Your task to perform on an android device: Open Yahoo.com Image 0: 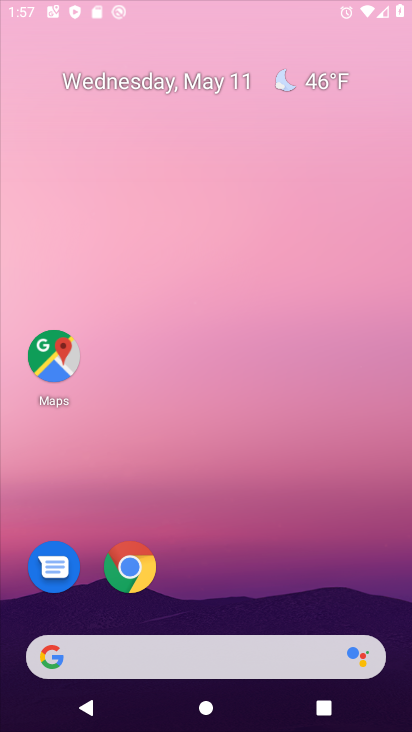
Step 0: drag from (194, 619) to (191, 43)
Your task to perform on an android device: Open Yahoo.com Image 1: 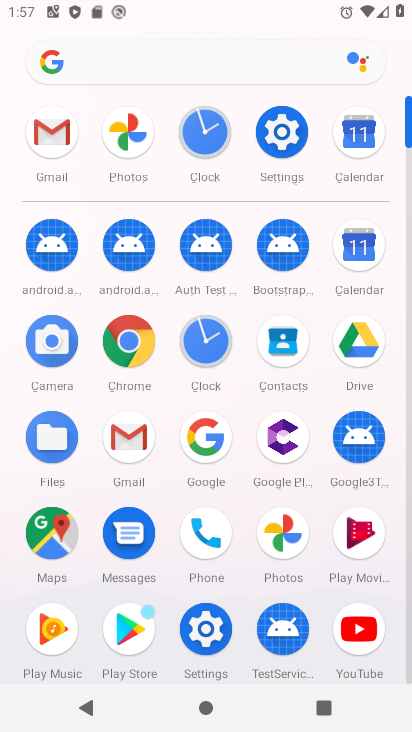
Step 1: click (270, 523)
Your task to perform on an android device: Open Yahoo.com Image 2: 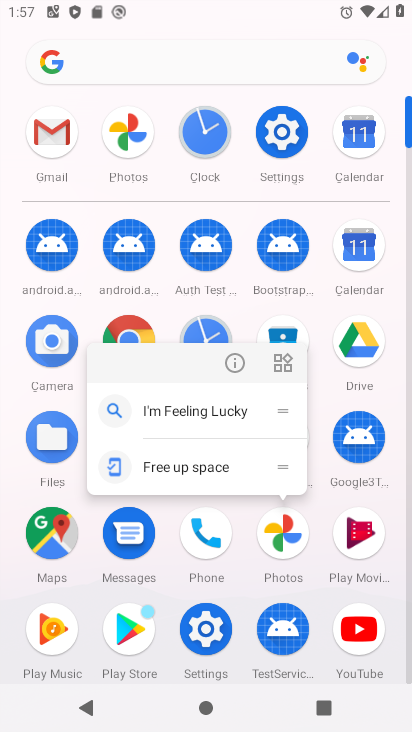
Step 2: click (133, 328)
Your task to perform on an android device: Open Yahoo.com Image 3: 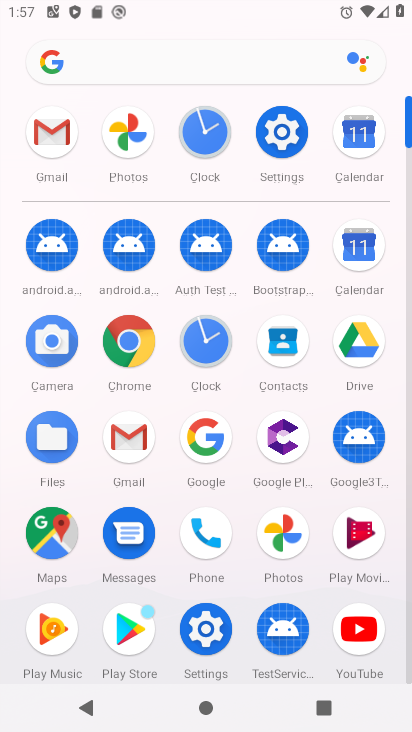
Step 3: click (135, 331)
Your task to perform on an android device: Open Yahoo.com Image 4: 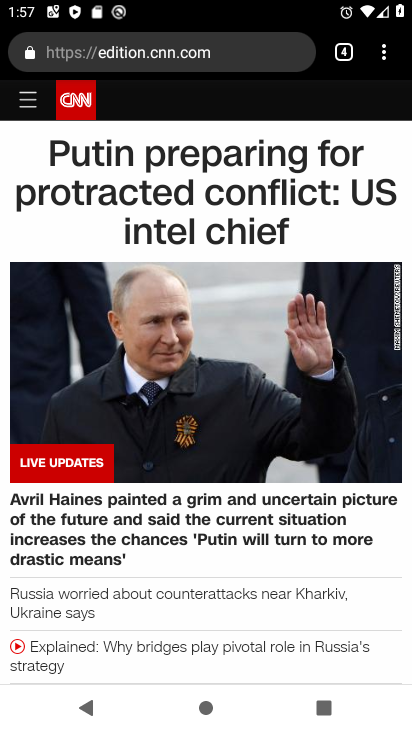
Step 4: click (346, 49)
Your task to perform on an android device: Open Yahoo.com Image 5: 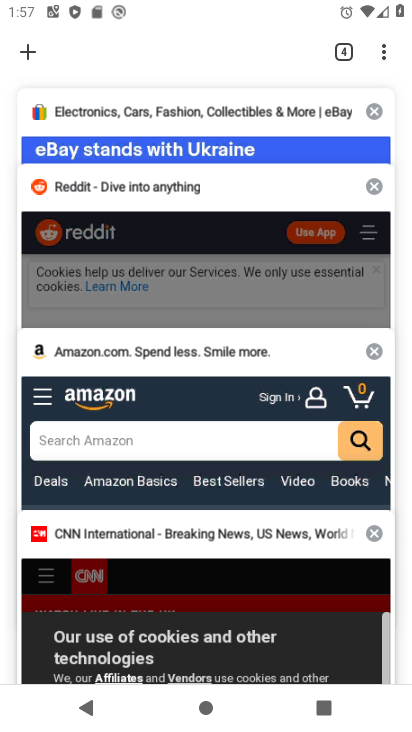
Step 5: click (25, 62)
Your task to perform on an android device: Open Yahoo.com Image 6: 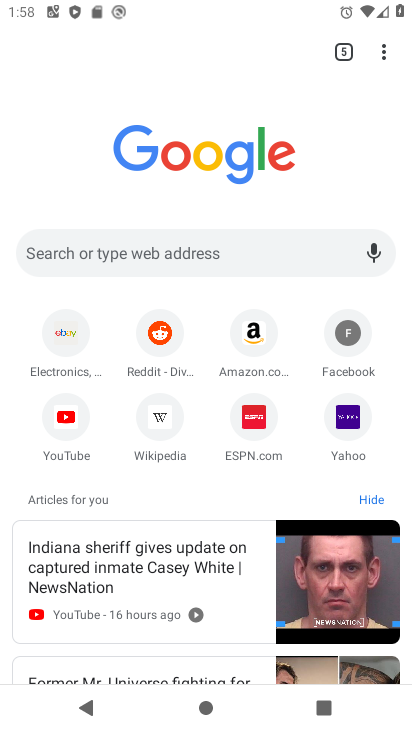
Step 6: click (335, 430)
Your task to perform on an android device: Open Yahoo.com Image 7: 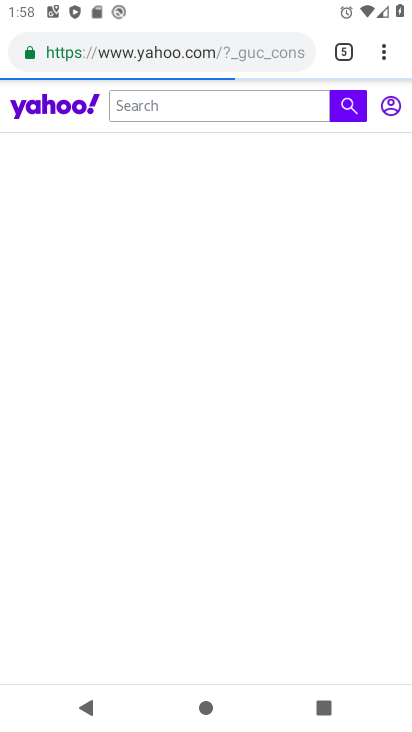
Step 7: task complete